Your task to perform on an android device: Open sound settings Image 0: 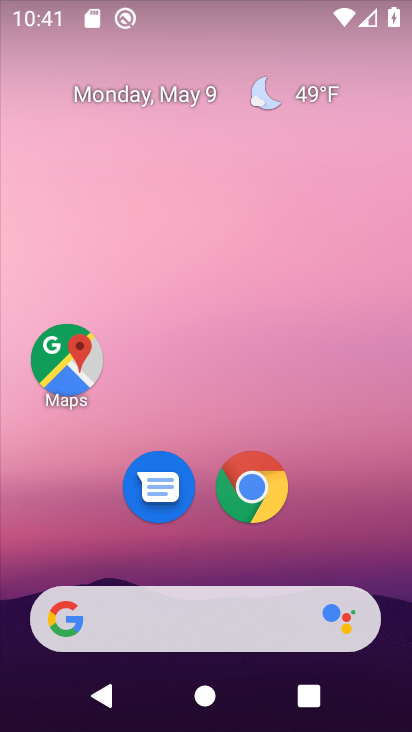
Step 0: drag from (300, 536) to (133, 147)
Your task to perform on an android device: Open sound settings Image 1: 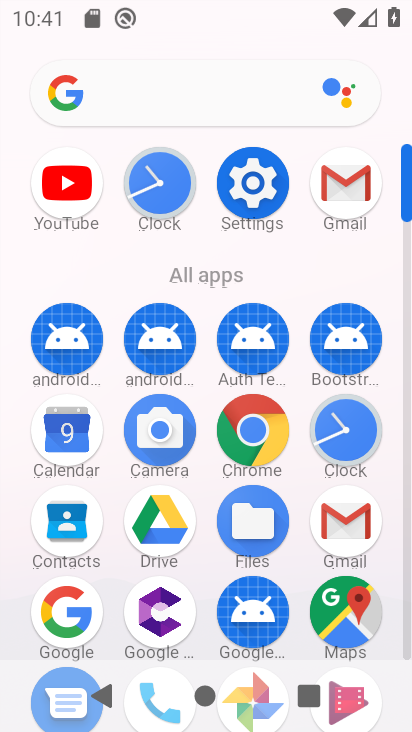
Step 1: click (243, 185)
Your task to perform on an android device: Open sound settings Image 2: 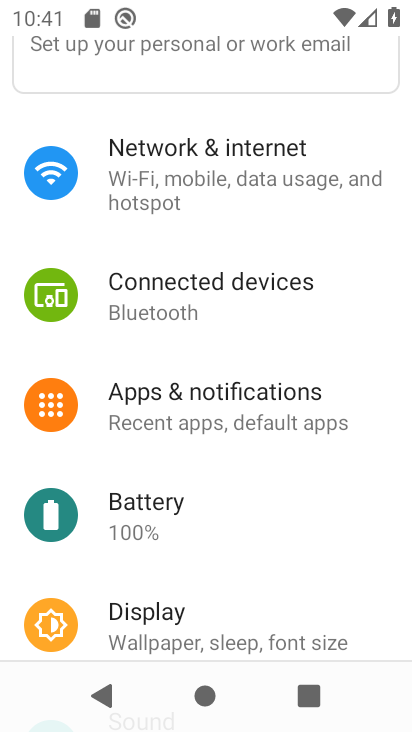
Step 2: drag from (240, 586) to (212, 260)
Your task to perform on an android device: Open sound settings Image 3: 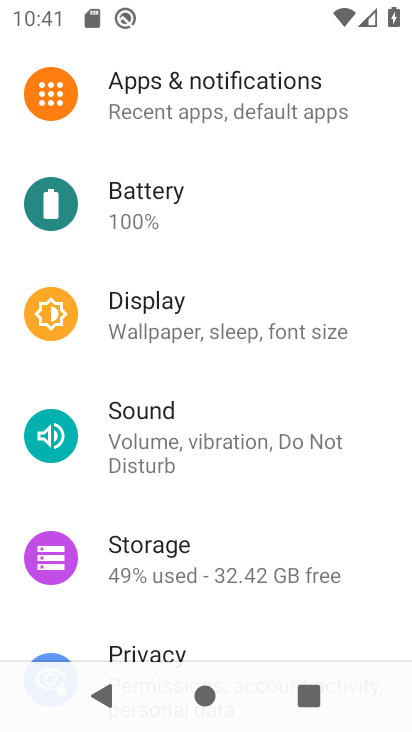
Step 3: click (151, 444)
Your task to perform on an android device: Open sound settings Image 4: 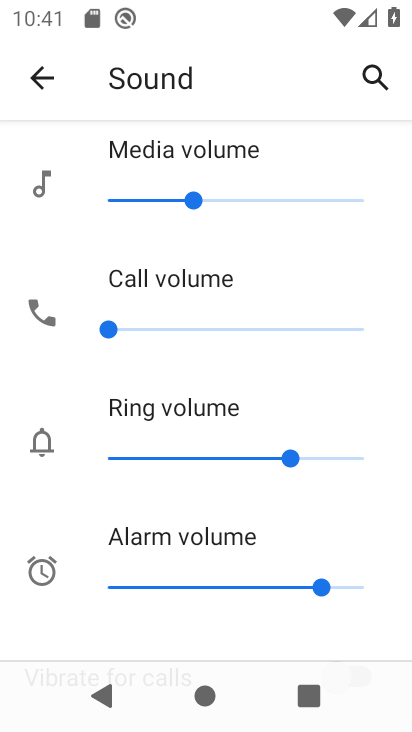
Step 4: drag from (63, 613) to (72, 224)
Your task to perform on an android device: Open sound settings Image 5: 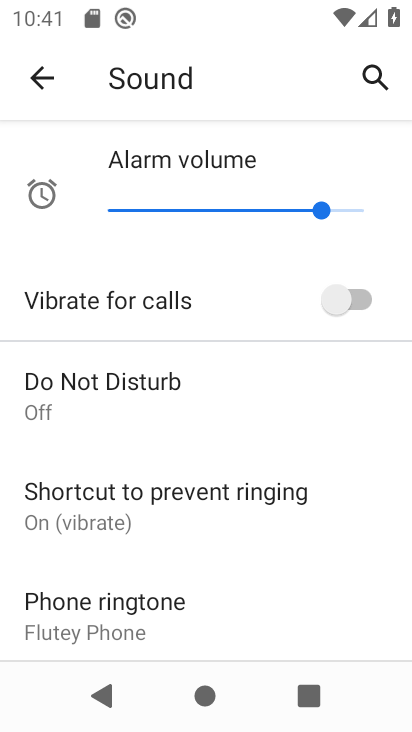
Step 5: drag from (86, 583) to (126, 174)
Your task to perform on an android device: Open sound settings Image 6: 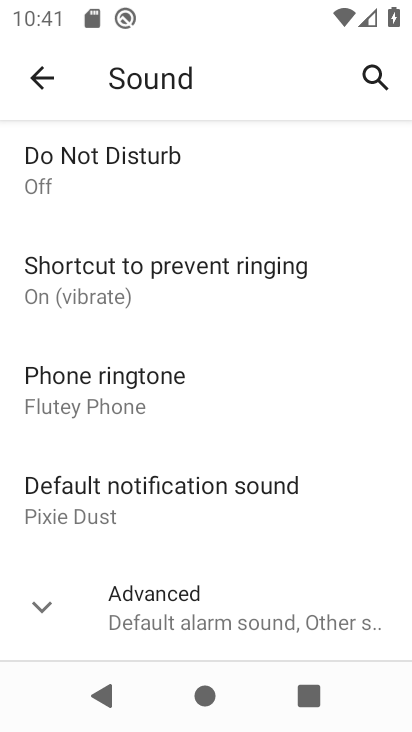
Step 6: click (45, 604)
Your task to perform on an android device: Open sound settings Image 7: 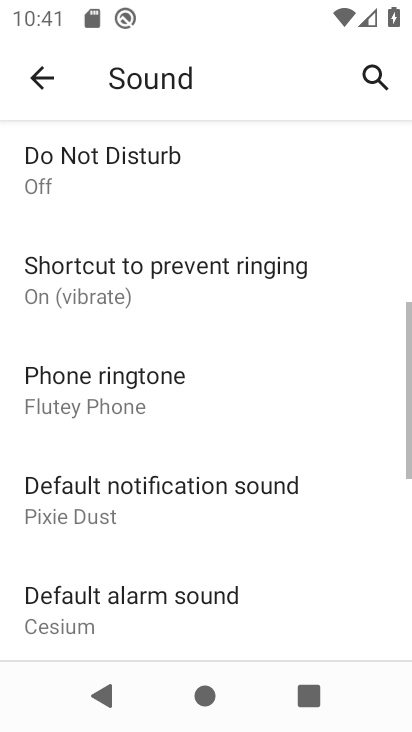
Step 7: task complete